Your task to perform on an android device: Open calendar and show me the fourth week of next month Image 0: 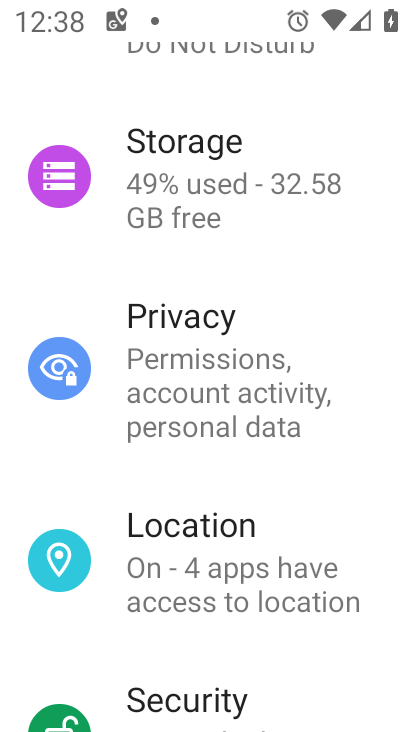
Step 0: press home button
Your task to perform on an android device: Open calendar and show me the fourth week of next month Image 1: 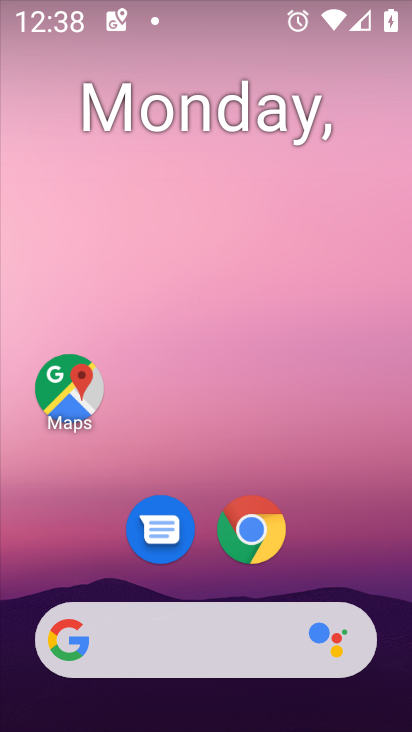
Step 1: drag from (221, 607) to (148, 26)
Your task to perform on an android device: Open calendar and show me the fourth week of next month Image 2: 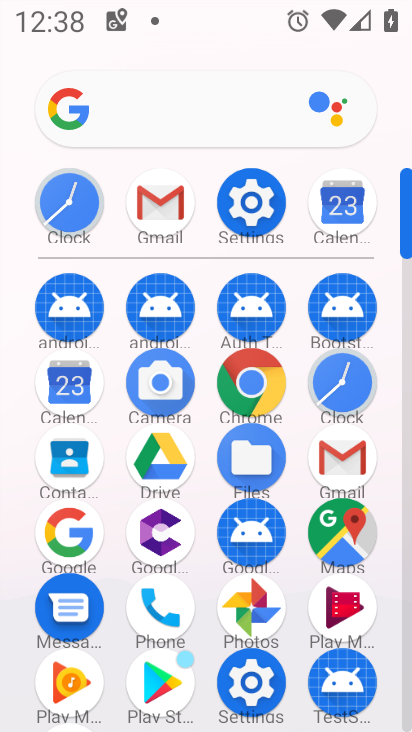
Step 2: click (50, 375)
Your task to perform on an android device: Open calendar and show me the fourth week of next month Image 3: 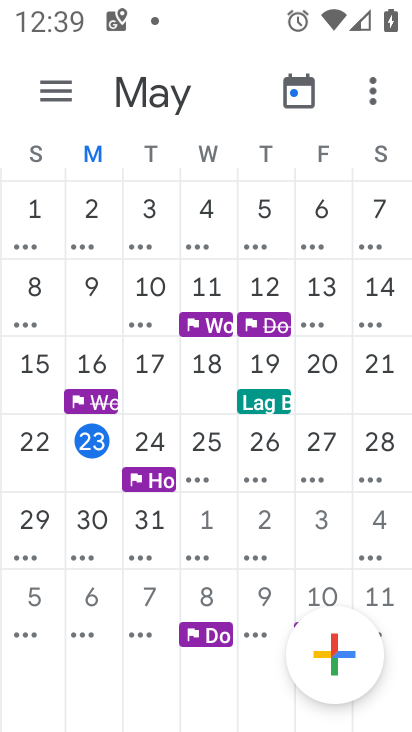
Step 3: task complete